Your task to perform on an android device: toggle data saver in the chrome app Image 0: 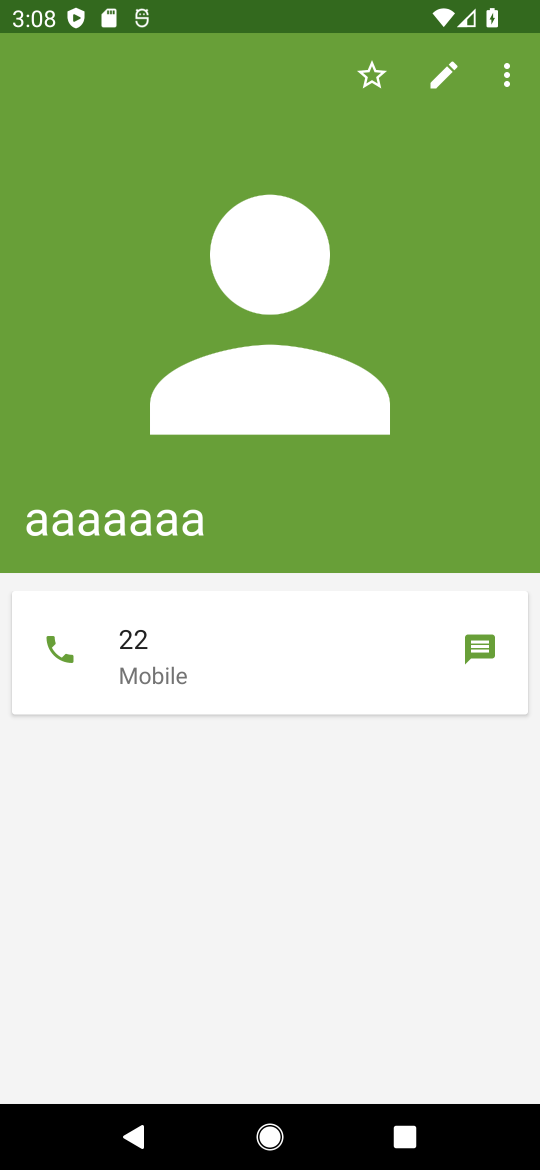
Step 0: press home button
Your task to perform on an android device: toggle data saver in the chrome app Image 1: 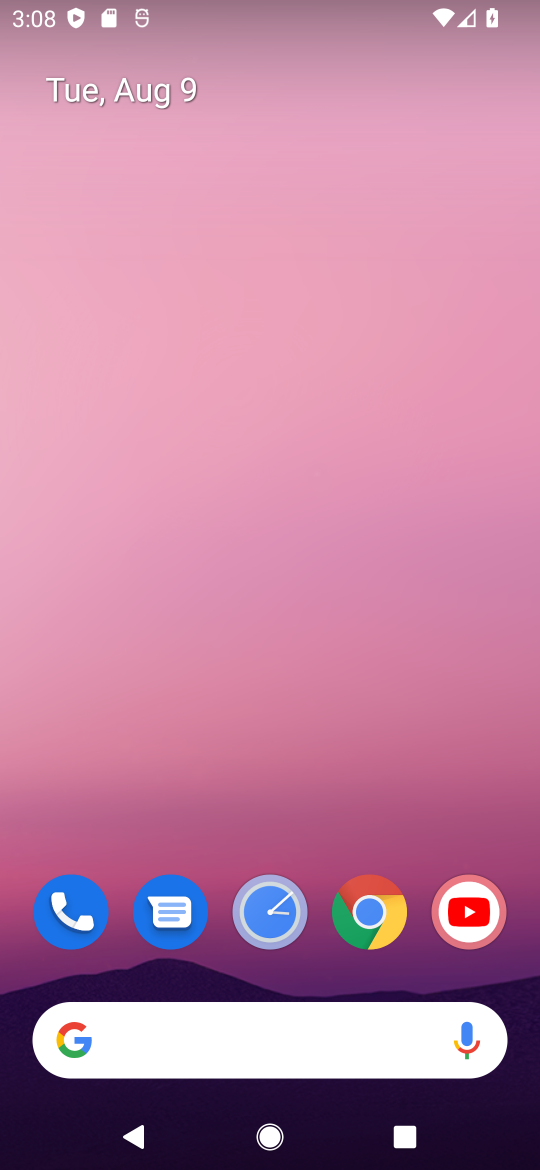
Step 1: click (363, 908)
Your task to perform on an android device: toggle data saver in the chrome app Image 2: 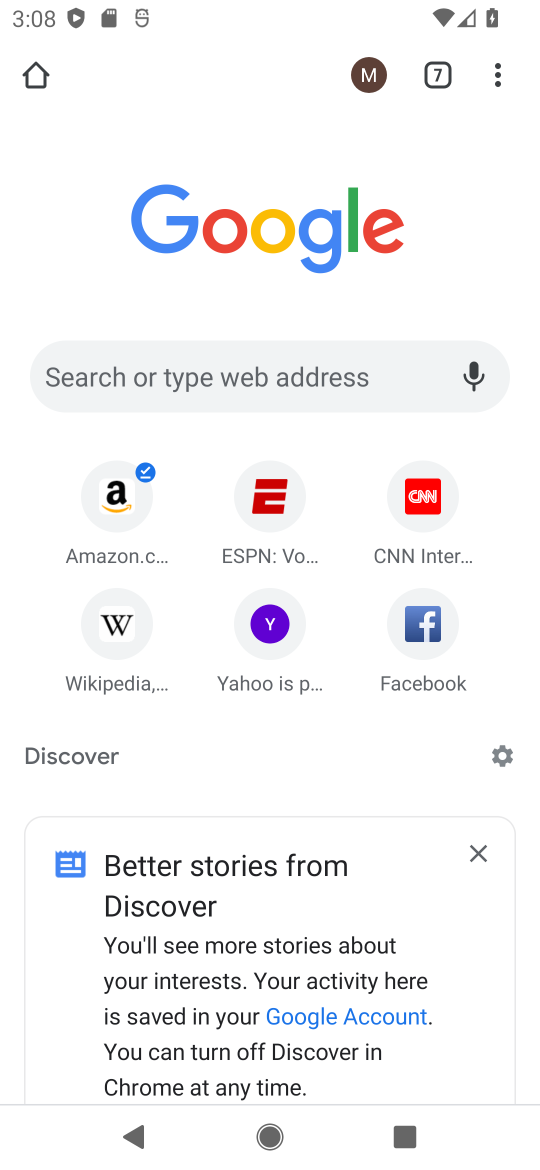
Step 2: click (500, 77)
Your task to perform on an android device: toggle data saver in the chrome app Image 3: 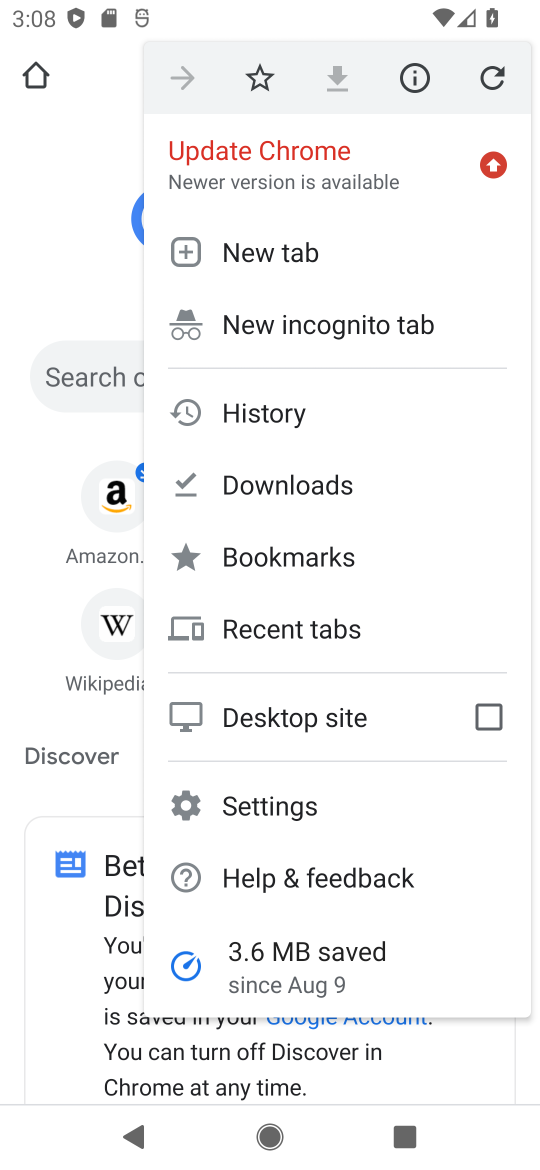
Step 3: click (275, 801)
Your task to perform on an android device: toggle data saver in the chrome app Image 4: 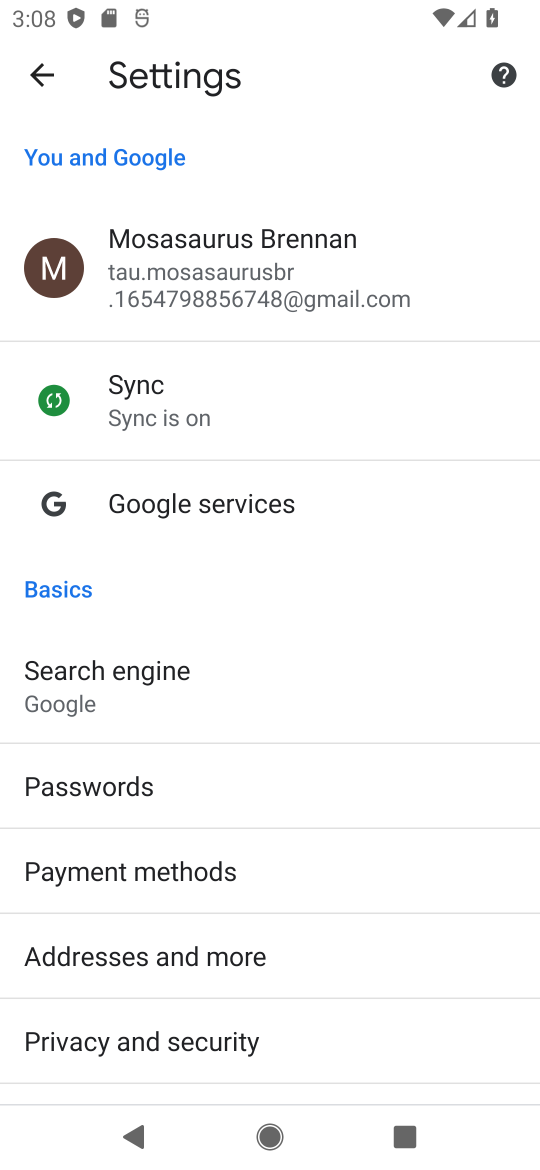
Step 4: drag from (302, 918) to (273, 296)
Your task to perform on an android device: toggle data saver in the chrome app Image 5: 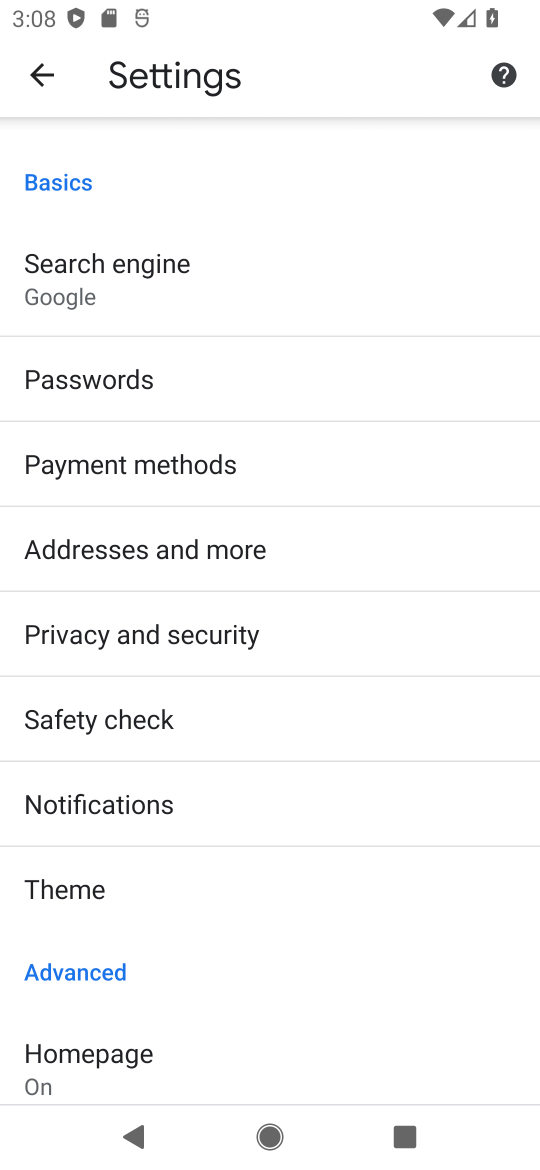
Step 5: drag from (312, 937) to (305, 350)
Your task to perform on an android device: toggle data saver in the chrome app Image 6: 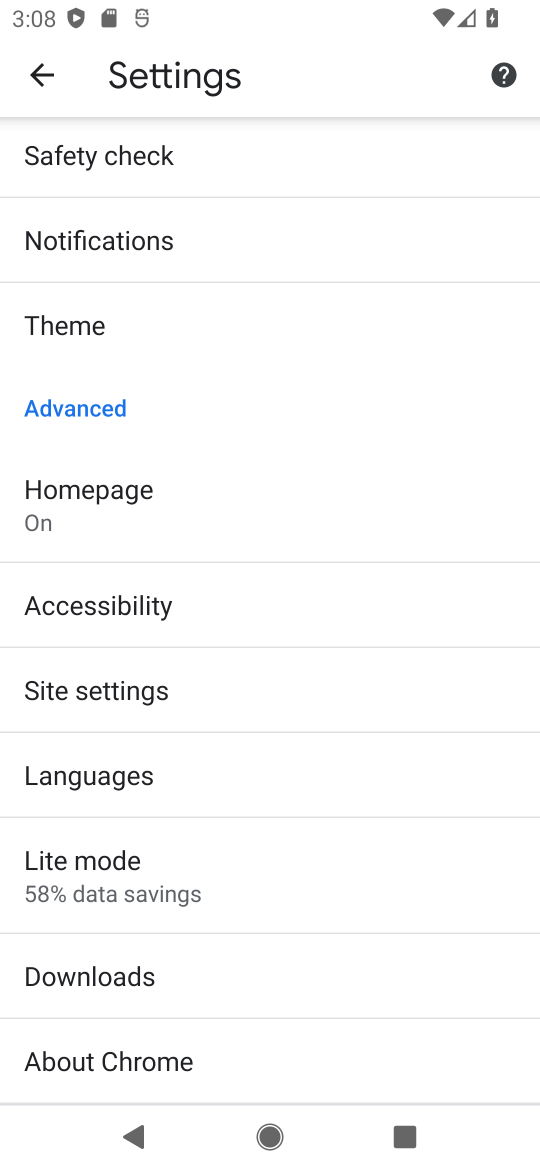
Step 6: click (107, 867)
Your task to perform on an android device: toggle data saver in the chrome app Image 7: 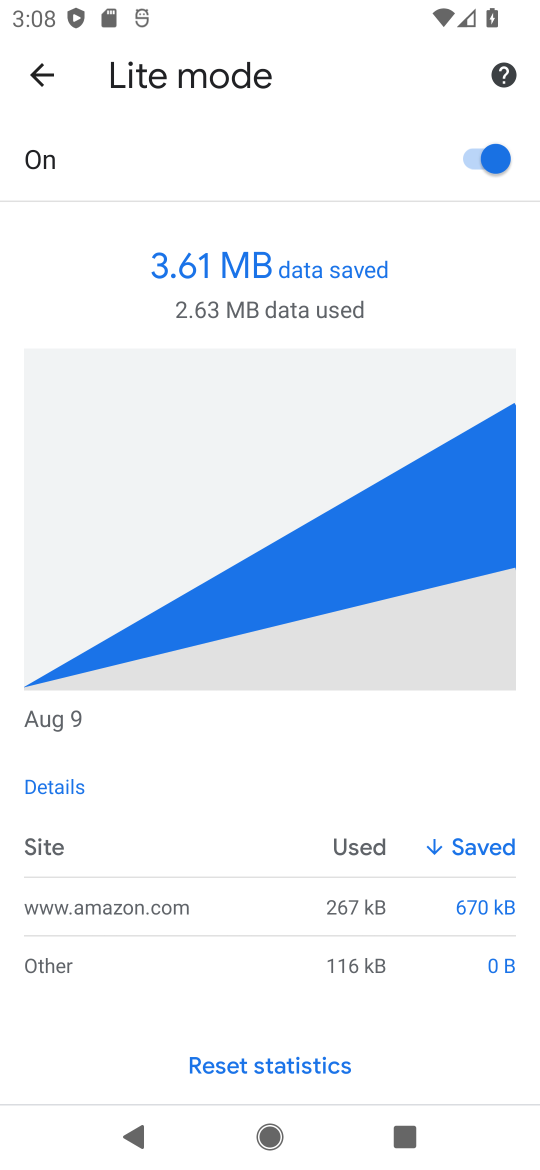
Step 7: click (497, 156)
Your task to perform on an android device: toggle data saver in the chrome app Image 8: 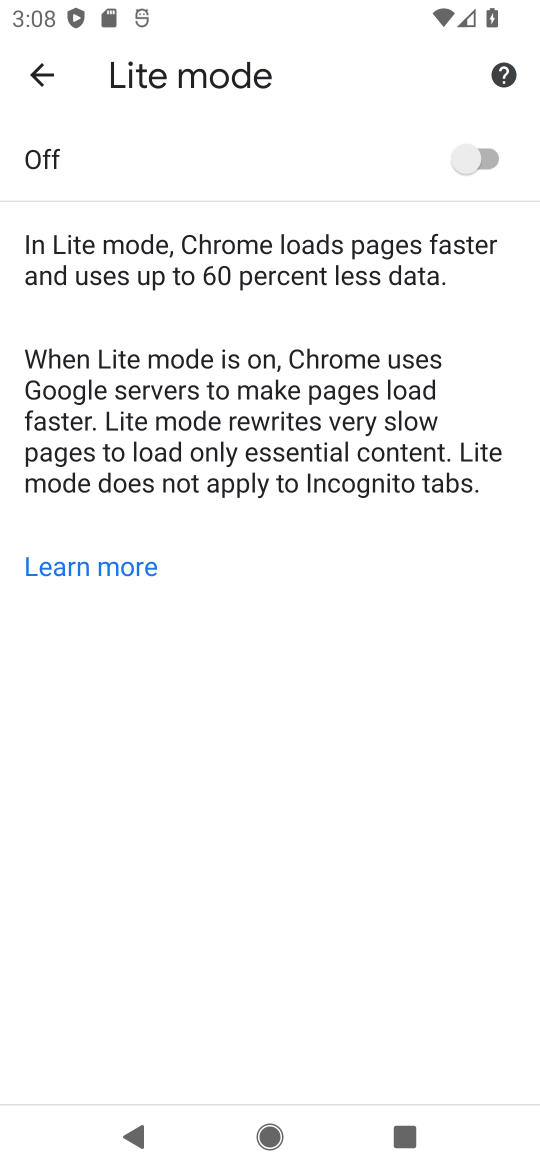
Step 8: task complete